Your task to perform on an android device: delete the emails in spam in the gmail app Image 0: 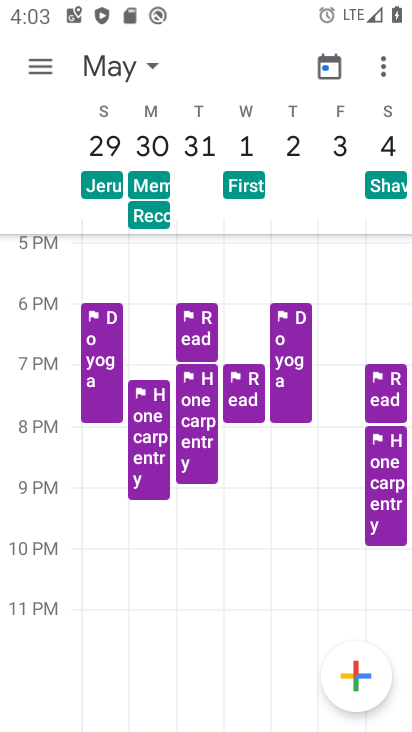
Step 0: press home button
Your task to perform on an android device: delete the emails in spam in the gmail app Image 1: 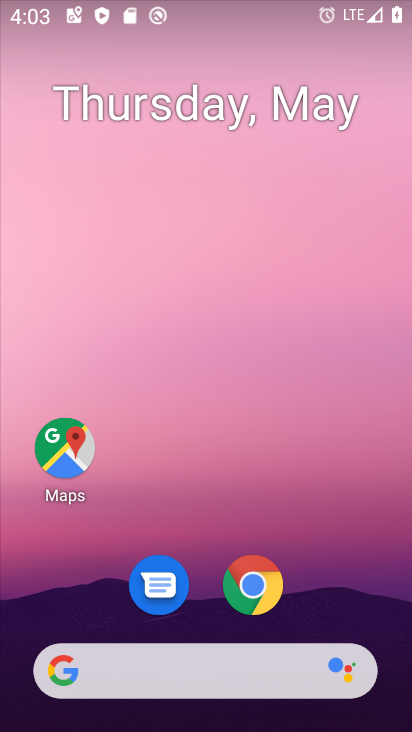
Step 1: drag from (195, 471) to (238, 50)
Your task to perform on an android device: delete the emails in spam in the gmail app Image 2: 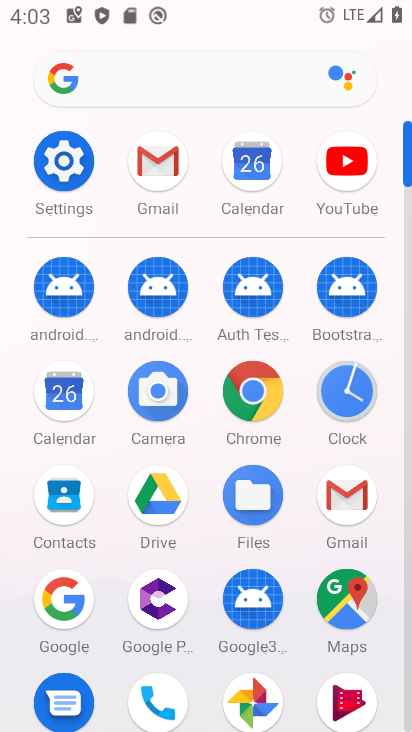
Step 2: click (342, 493)
Your task to perform on an android device: delete the emails in spam in the gmail app Image 3: 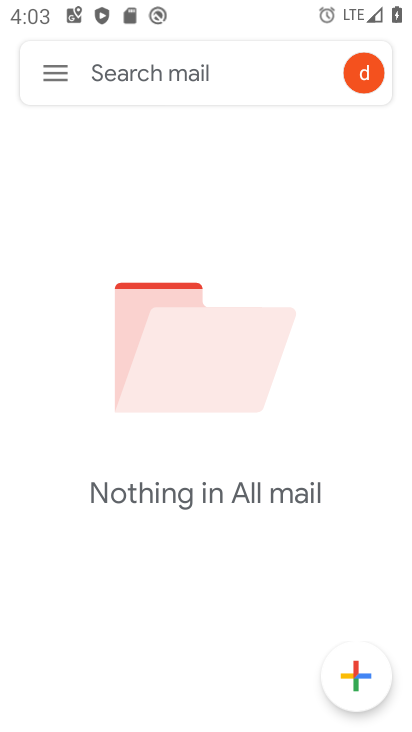
Step 3: click (56, 72)
Your task to perform on an android device: delete the emails in spam in the gmail app Image 4: 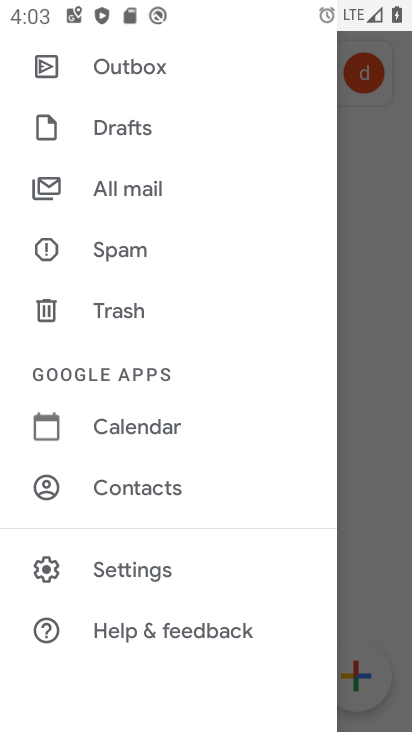
Step 4: click (112, 247)
Your task to perform on an android device: delete the emails in spam in the gmail app Image 5: 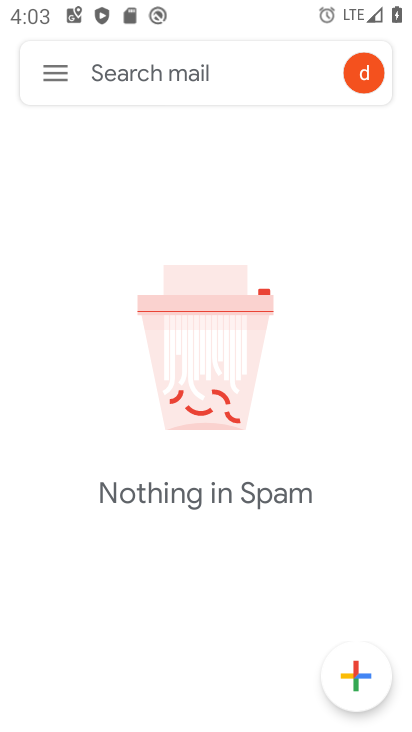
Step 5: task complete